Your task to perform on an android device: uninstall "AliExpress" Image 0: 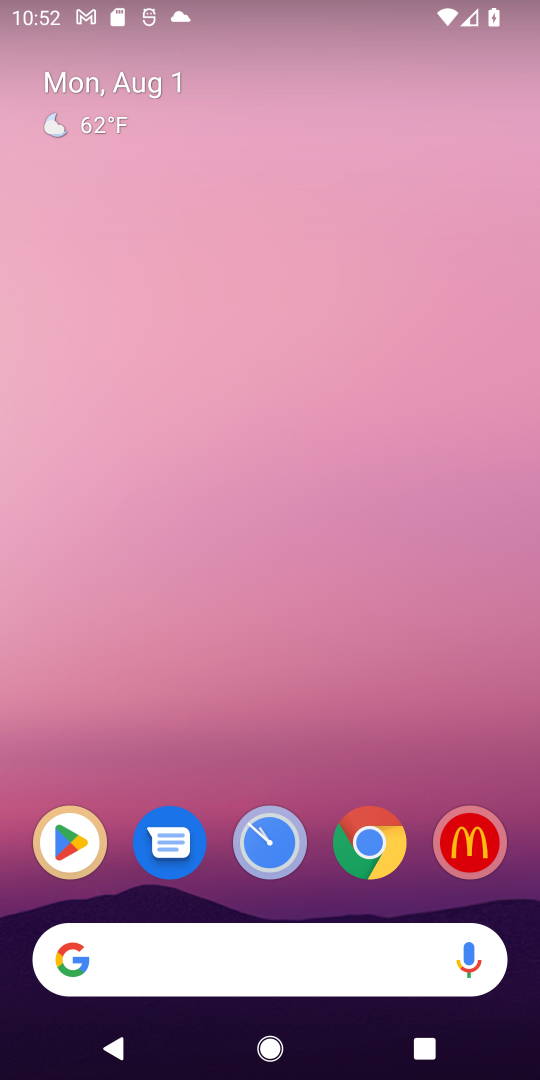
Step 0: click (51, 848)
Your task to perform on an android device: uninstall "AliExpress" Image 1: 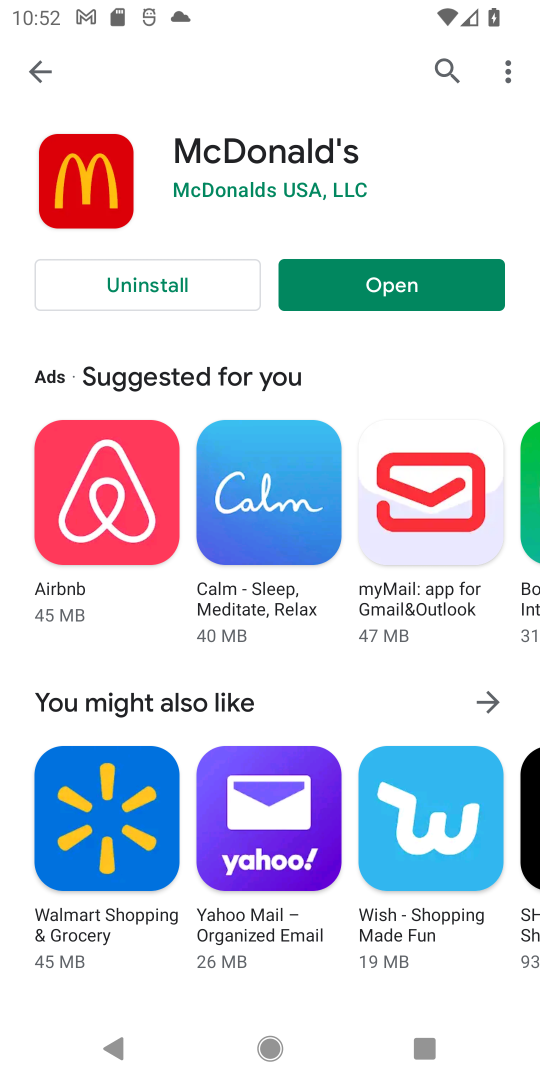
Step 1: click (436, 76)
Your task to perform on an android device: uninstall "AliExpress" Image 2: 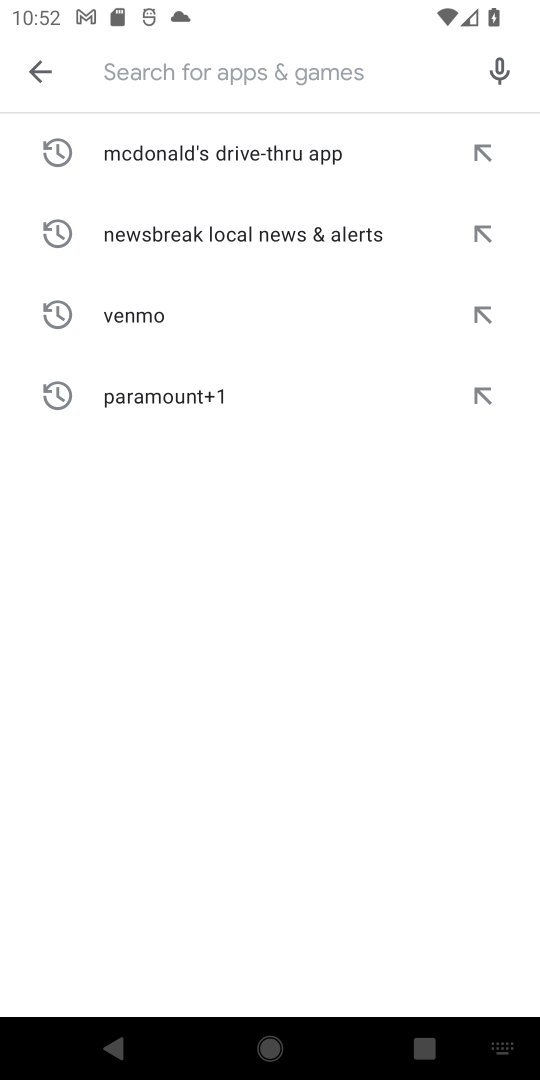
Step 2: click (186, 79)
Your task to perform on an android device: uninstall "AliExpress" Image 3: 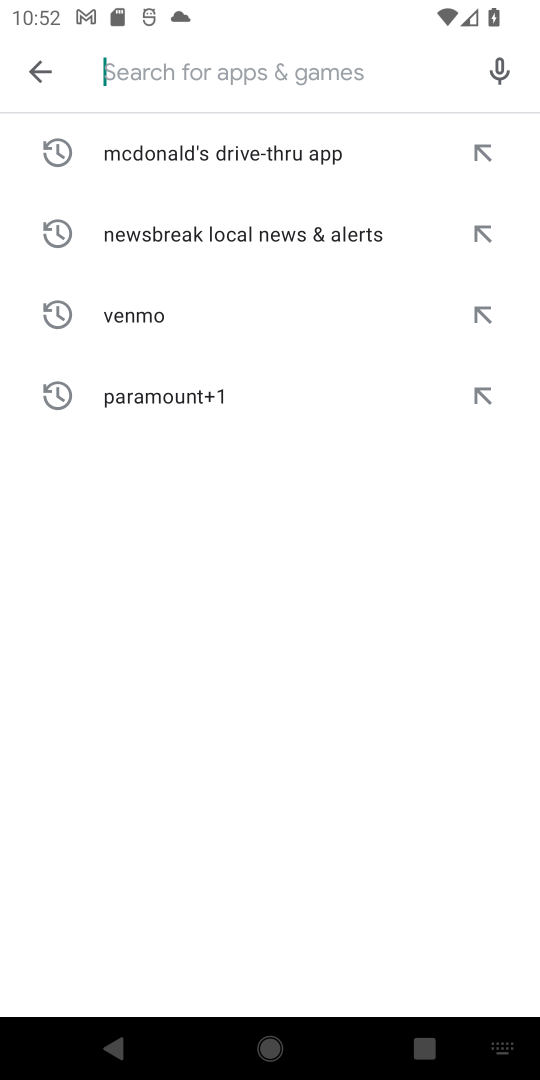
Step 3: type "AliExpress"
Your task to perform on an android device: uninstall "AliExpress" Image 4: 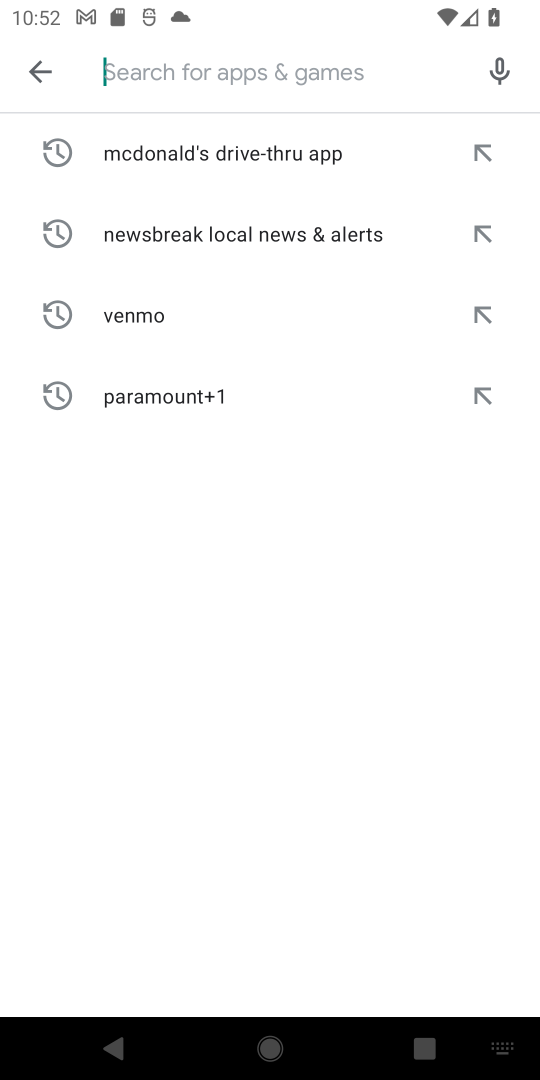
Step 4: click (396, 595)
Your task to perform on an android device: uninstall "AliExpress" Image 5: 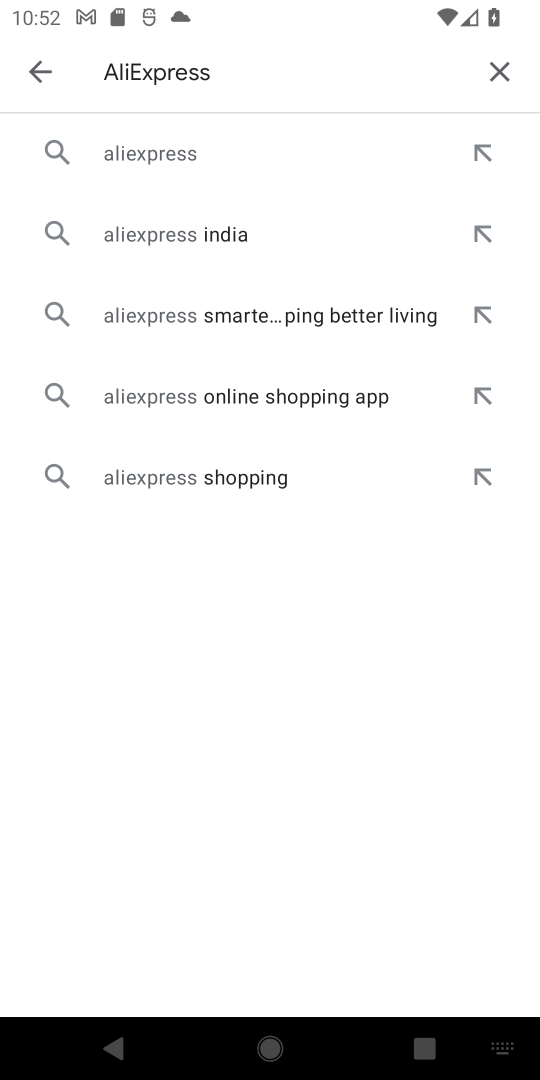
Step 5: click (184, 142)
Your task to perform on an android device: uninstall "AliExpress" Image 6: 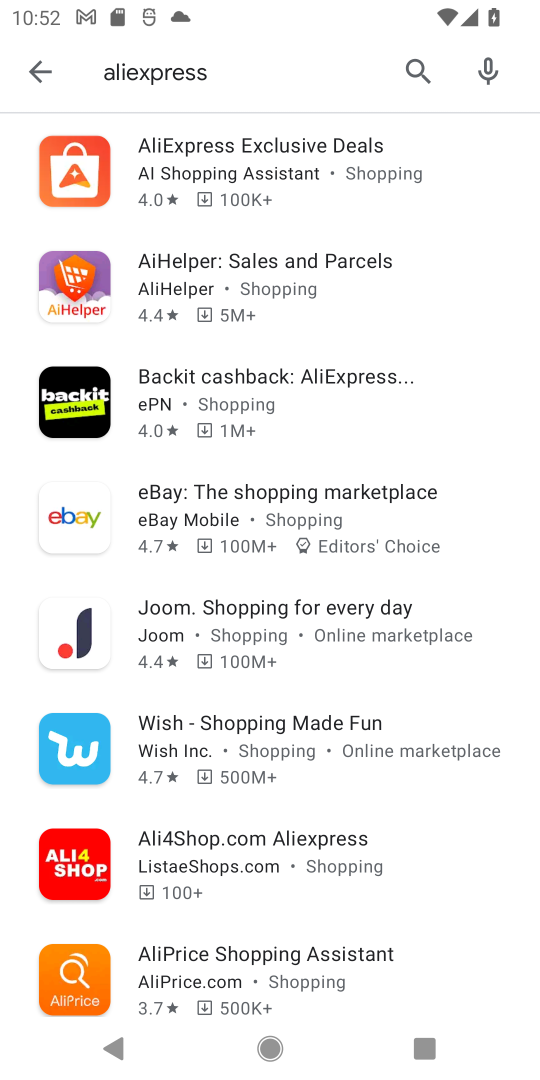
Step 6: click (327, 167)
Your task to perform on an android device: uninstall "AliExpress" Image 7: 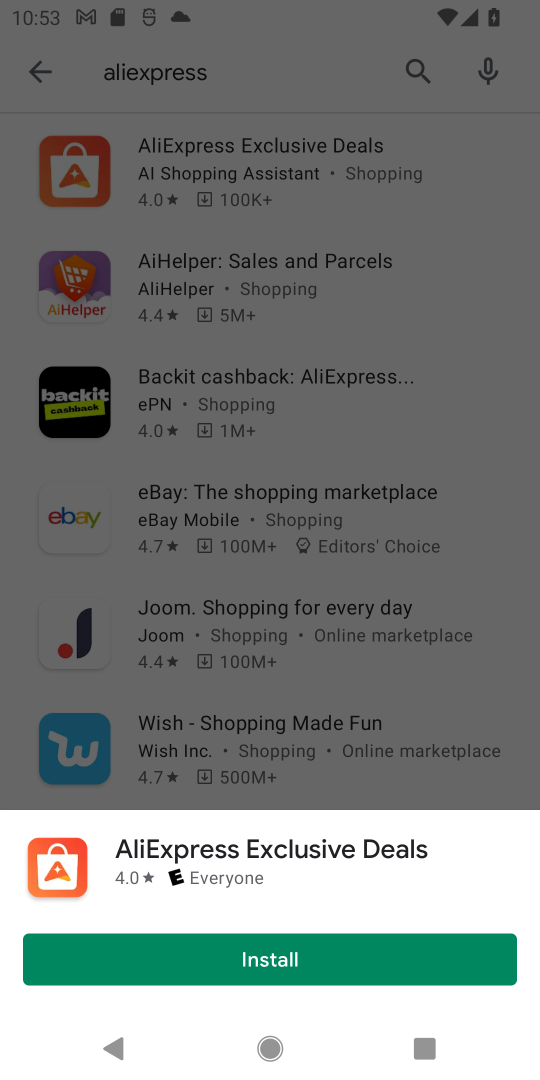
Step 7: task complete